Your task to perform on an android device: Go to Wikipedia Image 0: 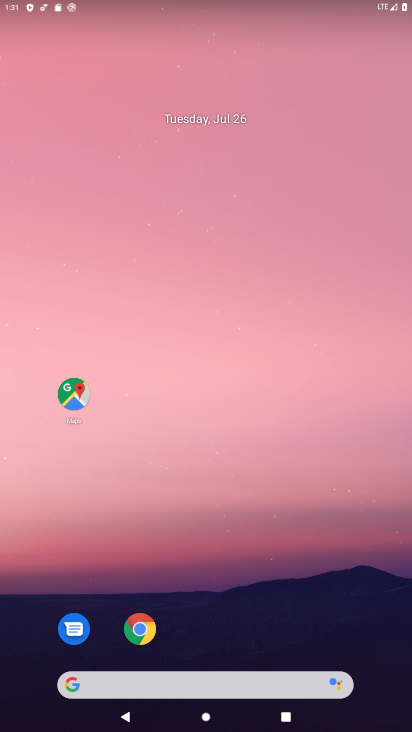
Step 0: click (132, 629)
Your task to perform on an android device: Go to Wikipedia Image 1: 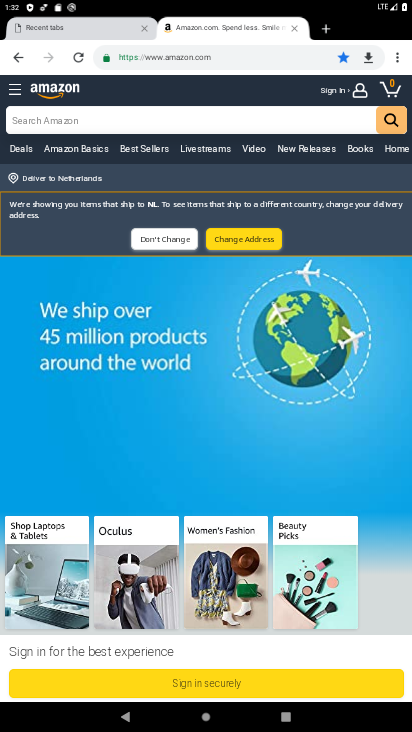
Step 1: click (208, 51)
Your task to perform on an android device: Go to Wikipedia Image 2: 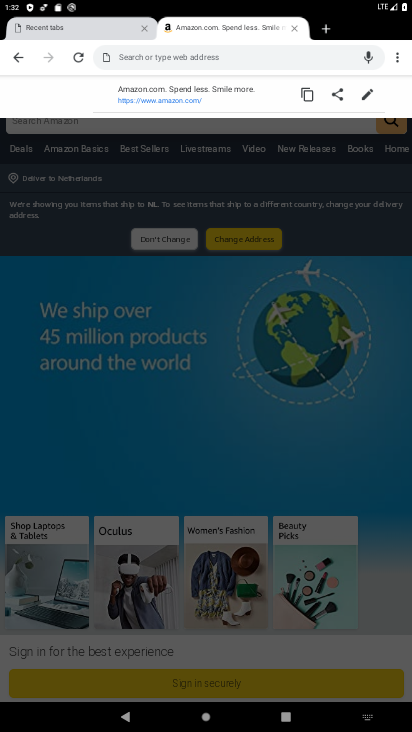
Step 2: type "Wikipedia"
Your task to perform on an android device: Go to Wikipedia Image 3: 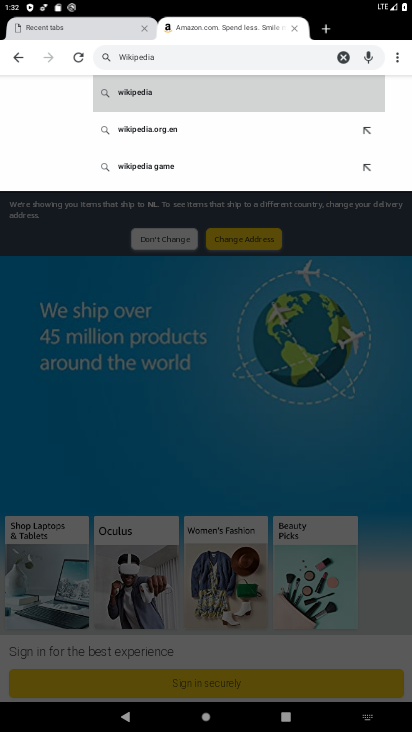
Step 3: click (166, 87)
Your task to perform on an android device: Go to Wikipedia Image 4: 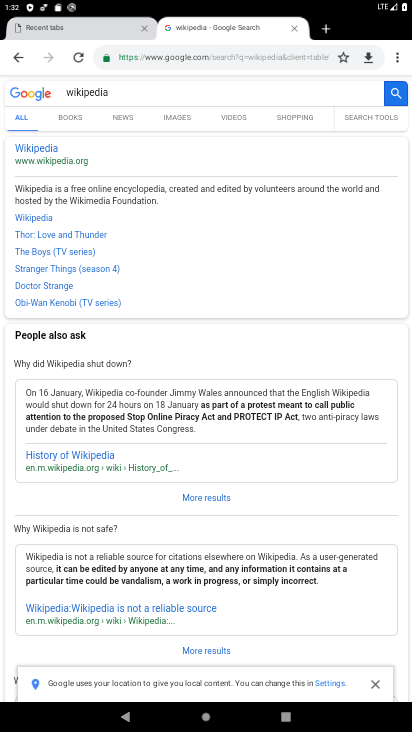
Step 4: task complete